Your task to perform on an android device: open wifi settings Image 0: 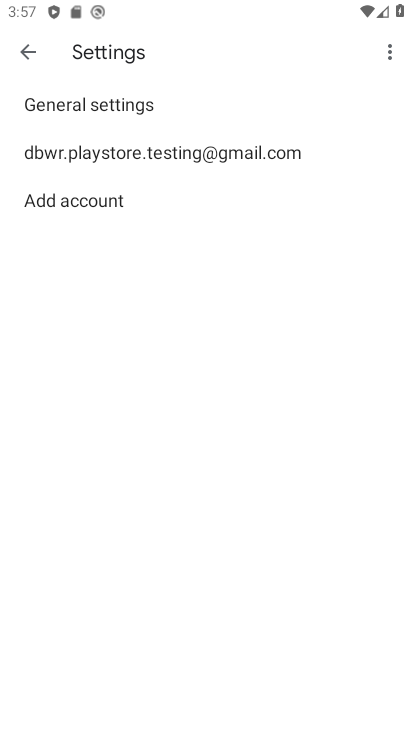
Step 0: press home button
Your task to perform on an android device: open wifi settings Image 1: 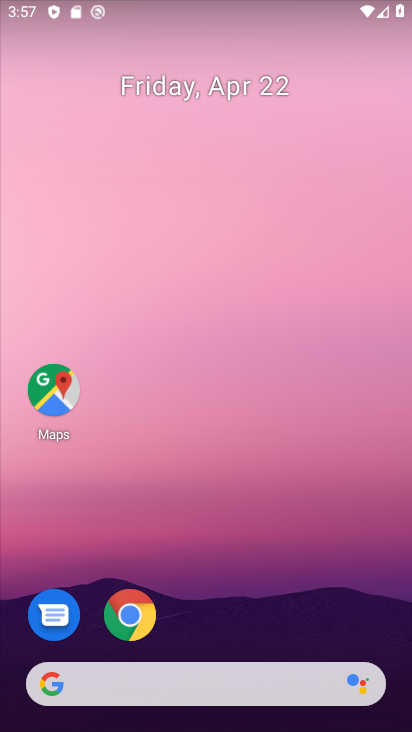
Step 1: drag from (240, 572) to (306, 118)
Your task to perform on an android device: open wifi settings Image 2: 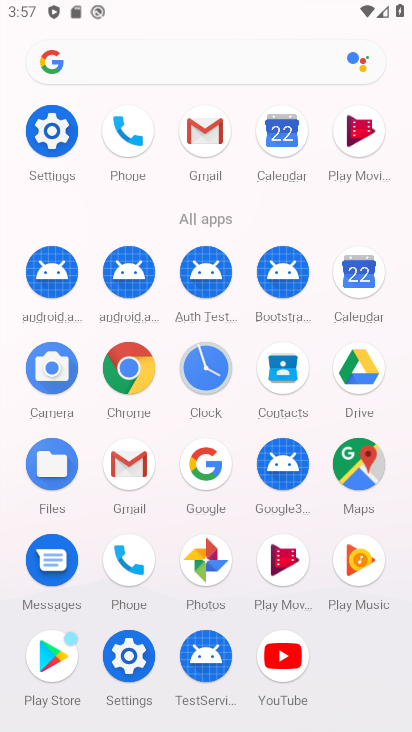
Step 2: click (136, 657)
Your task to perform on an android device: open wifi settings Image 3: 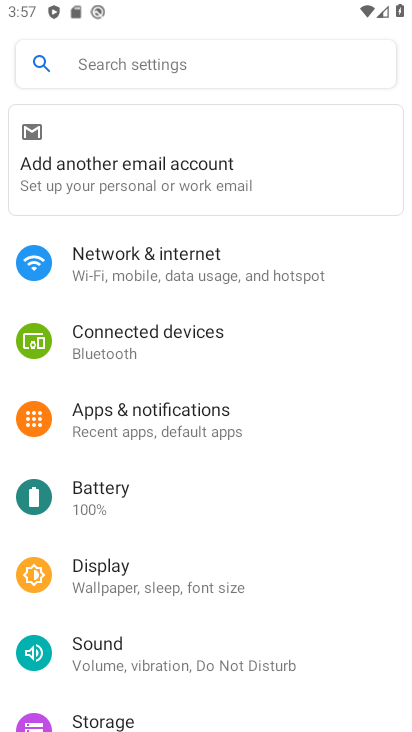
Step 3: click (207, 269)
Your task to perform on an android device: open wifi settings Image 4: 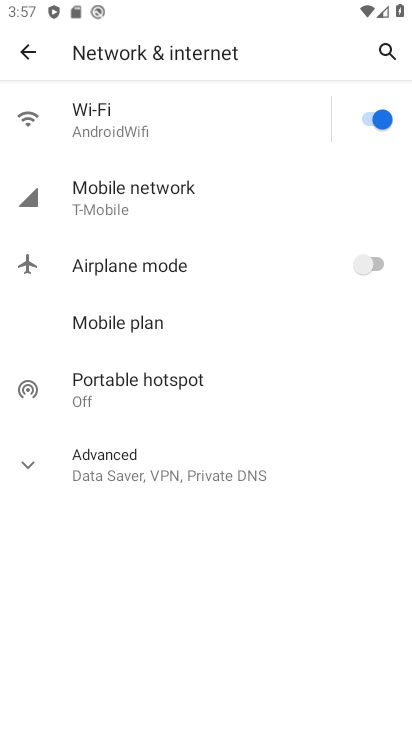
Step 4: click (191, 125)
Your task to perform on an android device: open wifi settings Image 5: 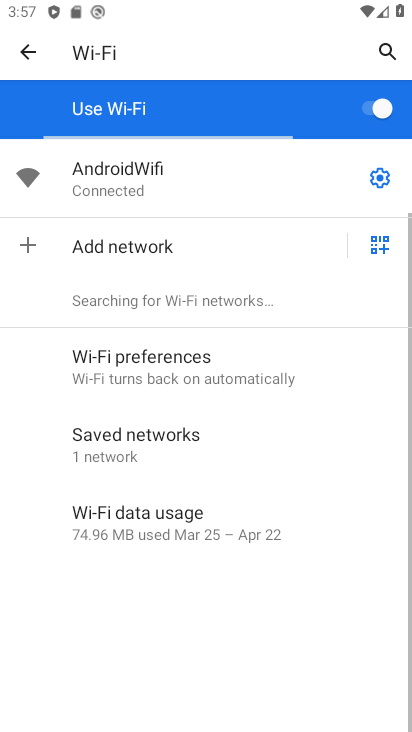
Step 5: task complete